Your task to perform on an android device: Do I have any events tomorrow? Image 0: 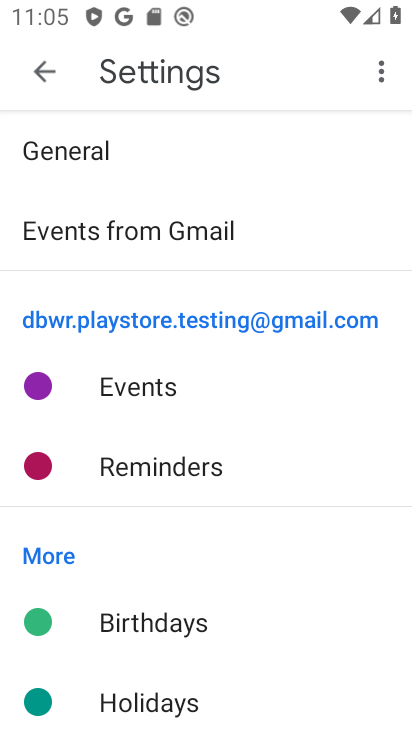
Step 0: press home button
Your task to perform on an android device: Do I have any events tomorrow? Image 1: 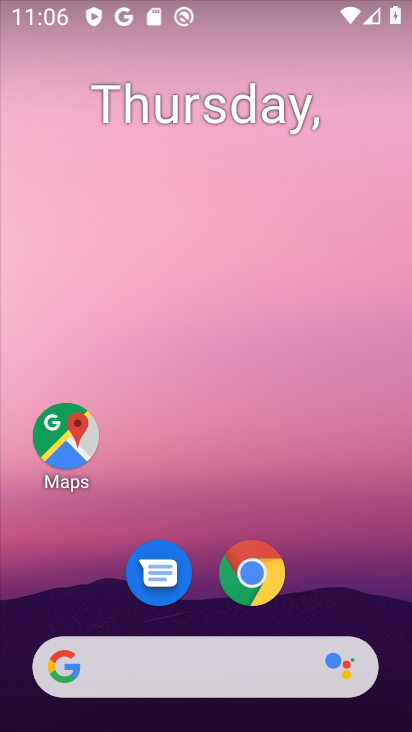
Step 1: drag from (167, 580) to (166, 154)
Your task to perform on an android device: Do I have any events tomorrow? Image 2: 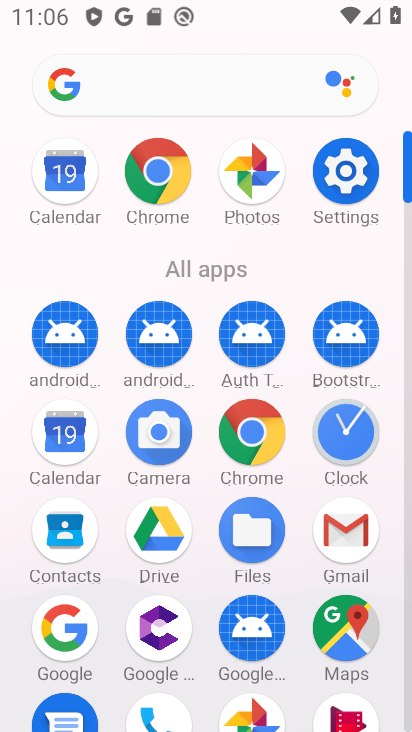
Step 2: click (75, 439)
Your task to perform on an android device: Do I have any events tomorrow? Image 3: 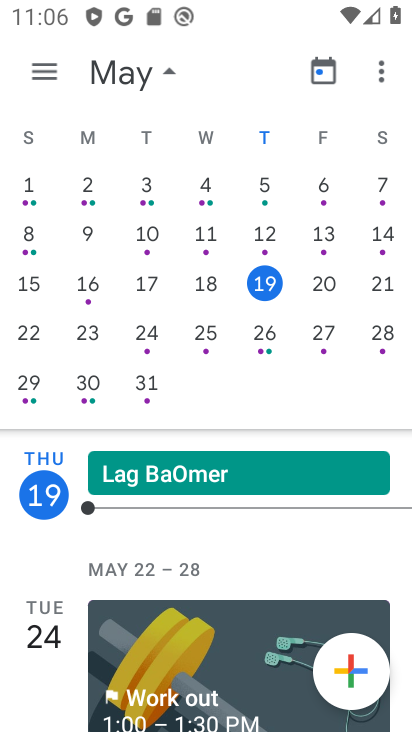
Step 3: click (373, 293)
Your task to perform on an android device: Do I have any events tomorrow? Image 4: 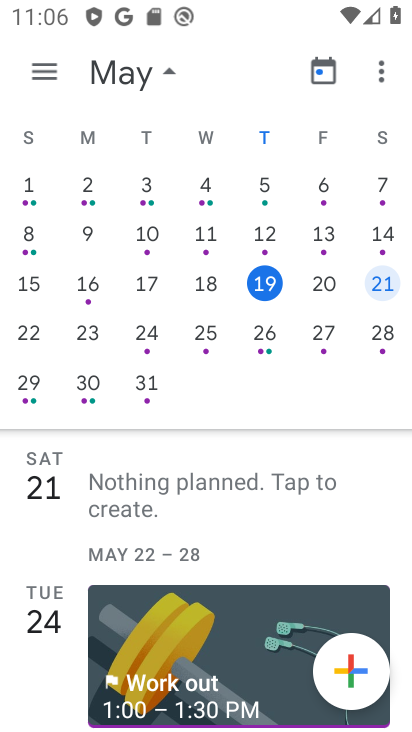
Step 4: click (331, 280)
Your task to perform on an android device: Do I have any events tomorrow? Image 5: 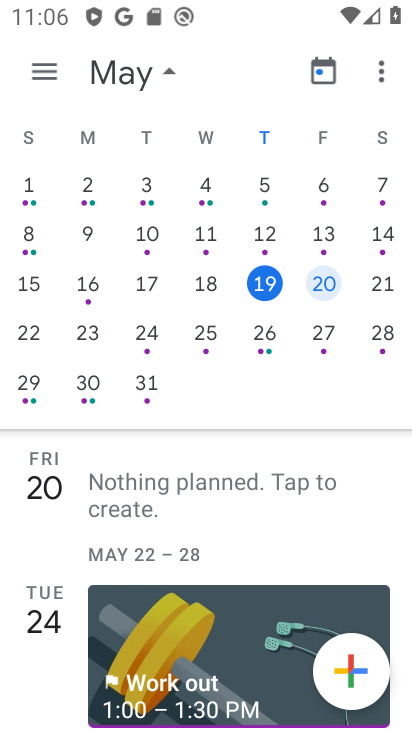
Step 5: click (327, 279)
Your task to perform on an android device: Do I have any events tomorrow? Image 6: 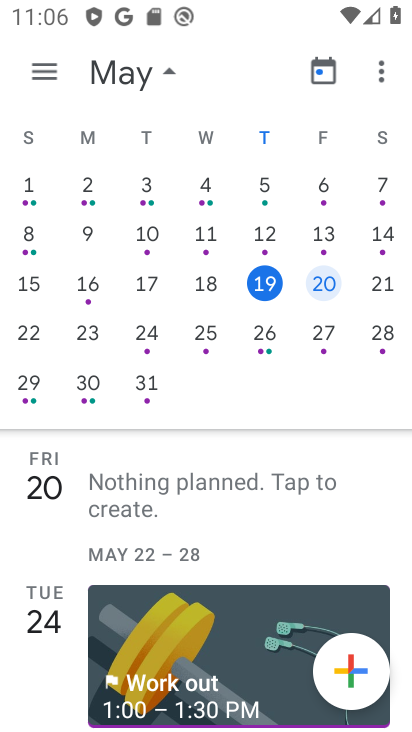
Step 6: click (178, 497)
Your task to perform on an android device: Do I have any events tomorrow? Image 7: 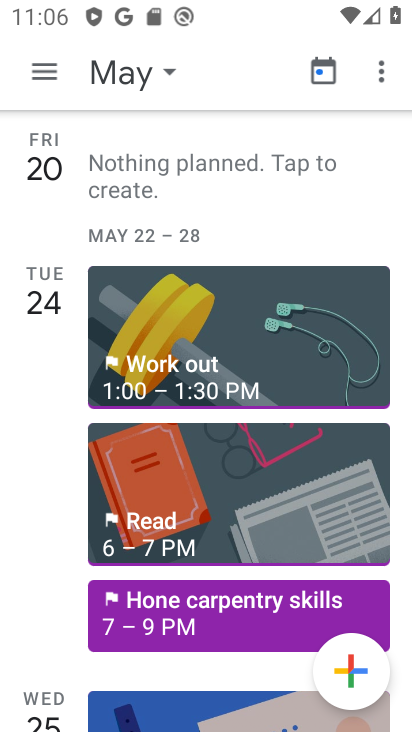
Step 7: click (195, 169)
Your task to perform on an android device: Do I have any events tomorrow? Image 8: 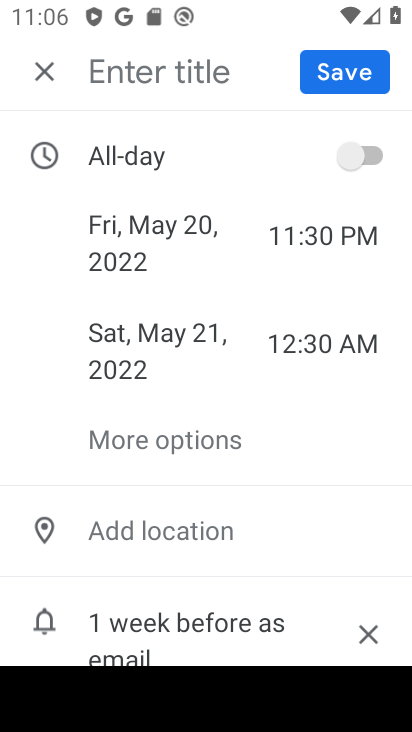
Step 8: task complete